Your task to perform on an android device: set an alarm Image 0: 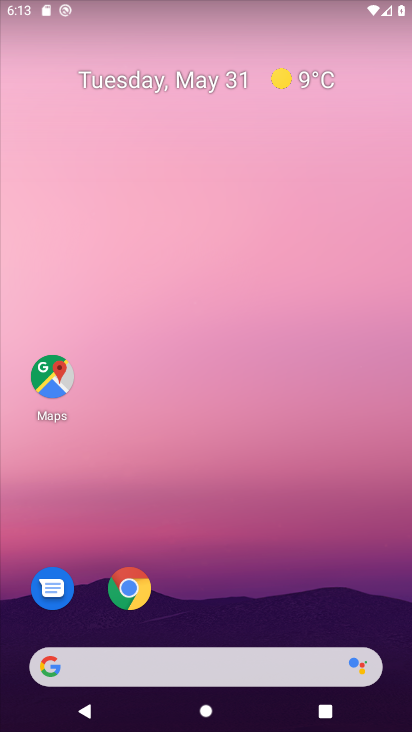
Step 0: drag from (237, 604) to (234, 182)
Your task to perform on an android device: set an alarm Image 1: 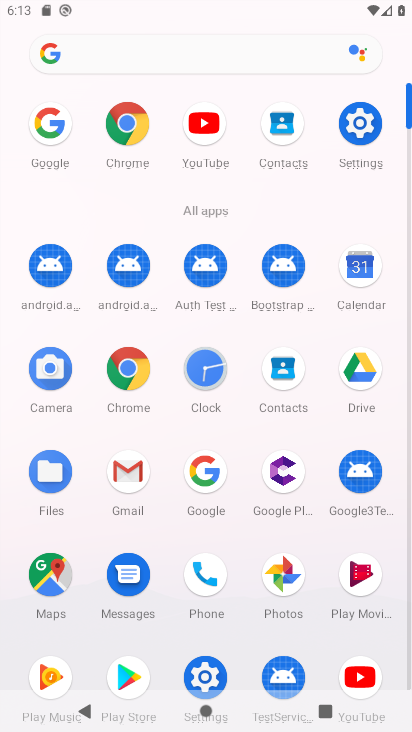
Step 1: click (198, 379)
Your task to perform on an android device: set an alarm Image 2: 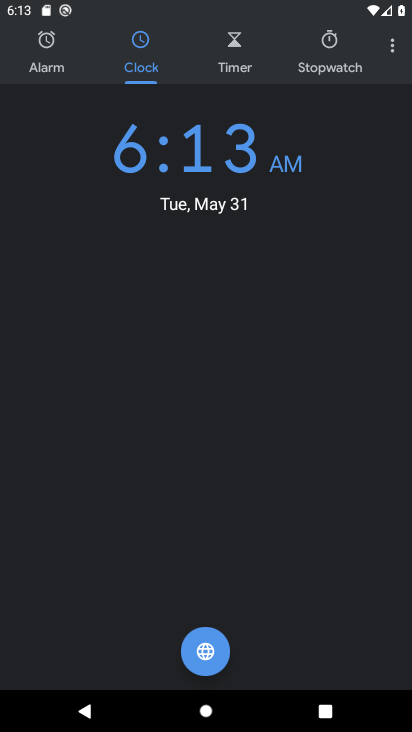
Step 2: click (50, 53)
Your task to perform on an android device: set an alarm Image 3: 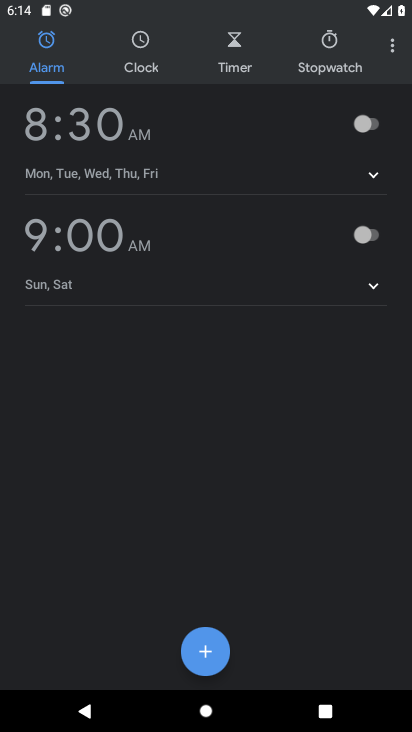
Step 3: click (375, 126)
Your task to perform on an android device: set an alarm Image 4: 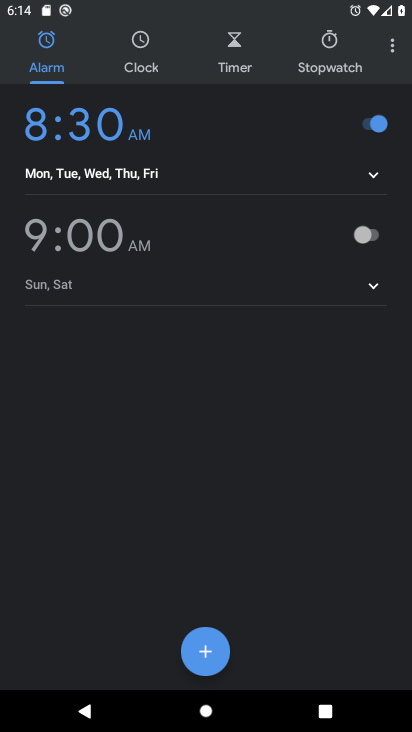
Step 4: task complete